Your task to perform on an android device: Is it going to rain tomorrow? Image 0: 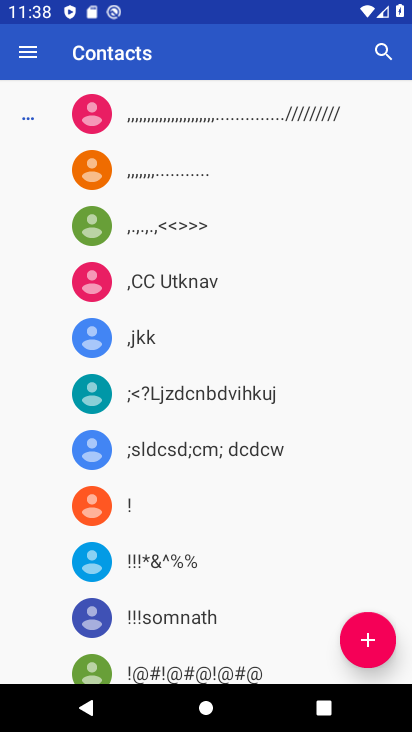
Step 0: press home button
Your task to perform on an android device: Is it going to rain tomorrow? Image 1: 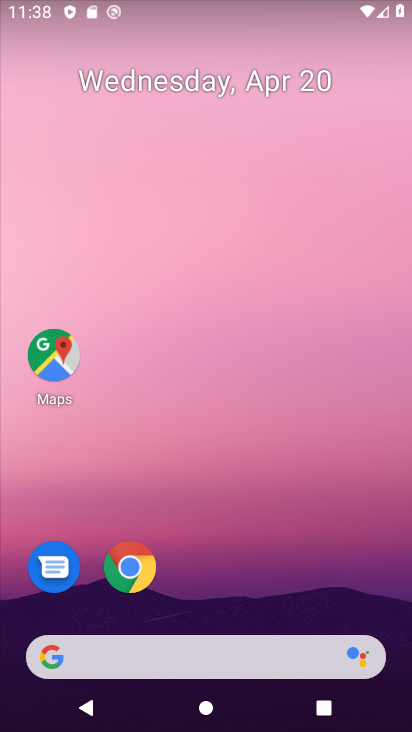
Step 1: drag from (198, 517) to (178, 269)
Your task to perform on an android device: Is it going to rain tomorrow? Image 2: 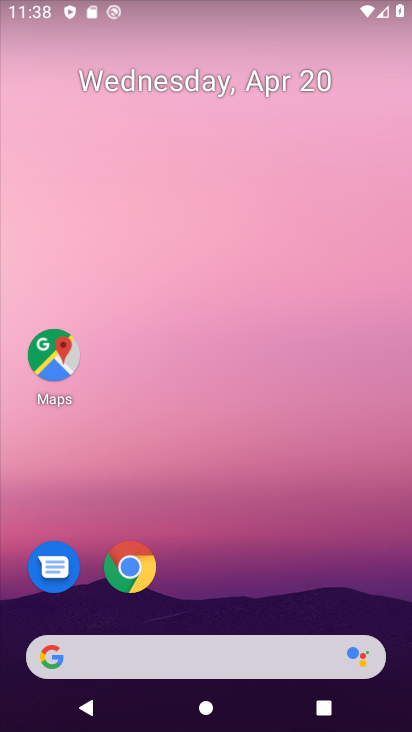
Step 2: drag from (190, 598) to (183, 231)
Your task to perform on an android device: Is it going to rain tomorrow? Image 3: 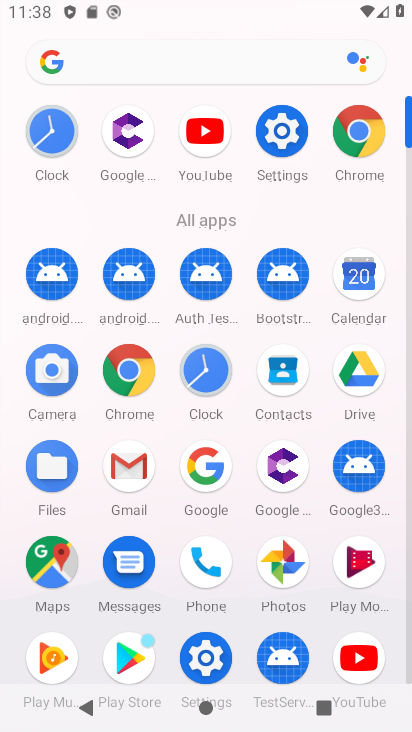
Step 3: click (202, 471)
Your task to perform on an android device: Is it going to rain tomorrow? Image 4: 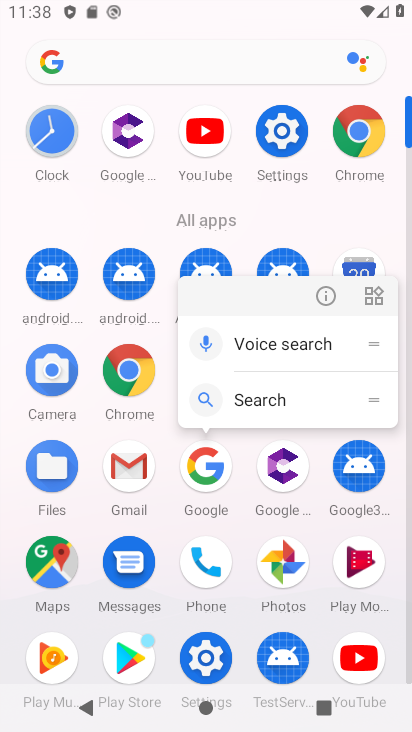
Step 4: click (195, 453)
Your task to perform on an android device: Is it going to rain tomorrow? Image 5: 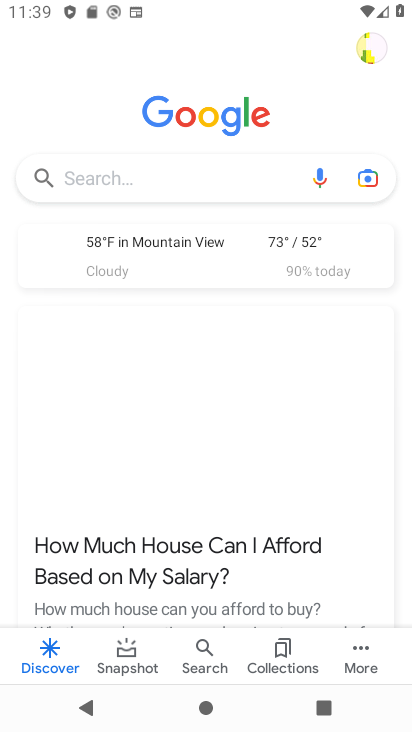
Step 5: click (107, 178)
Your task to perform on an android device: Is it going to rain tomorrow? Image 6: 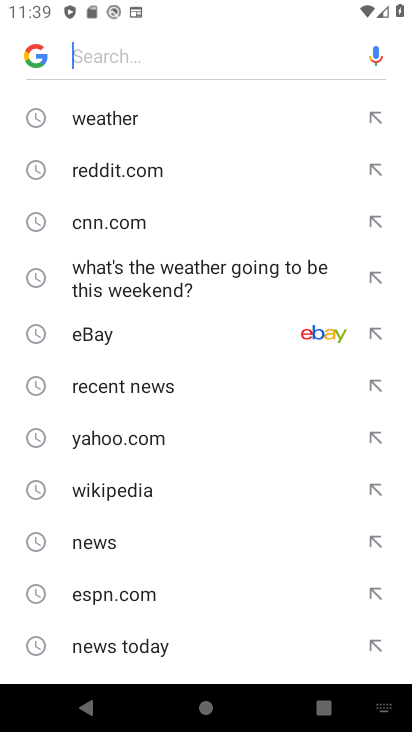
Step 6: type "is it going rain tomorrow?"
Your task to perform on an android device: Is it going to rain tomorrow? Image 7: 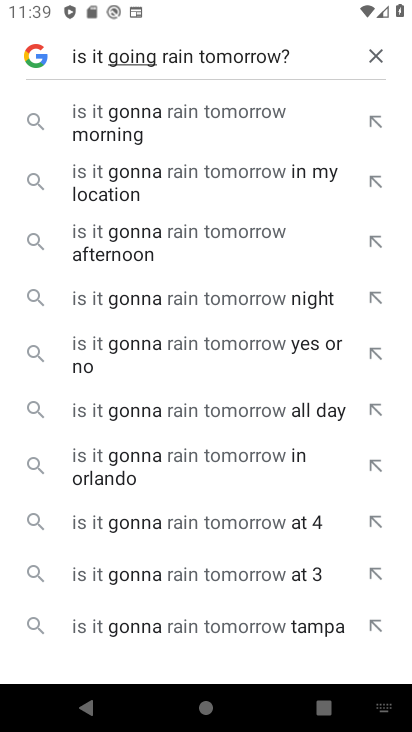
Step 7: click (139, 186)
Your task to perform on an android device: Is it going to rain tomorrow? Image 8: 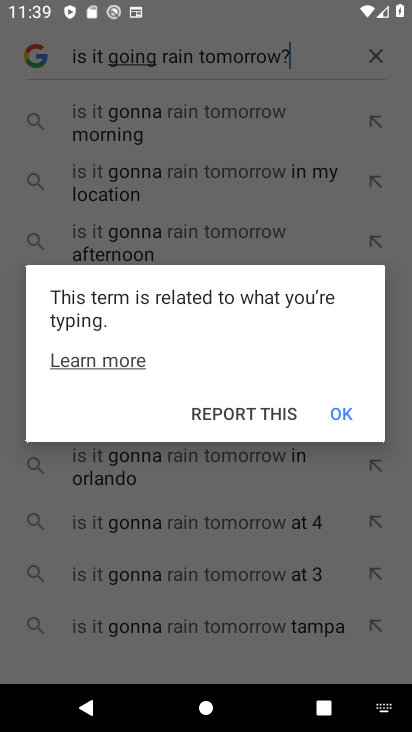
Step 8: click (331, 415)
Your task to perform on an android device: Is it going to rain tomorrow? Image 9: 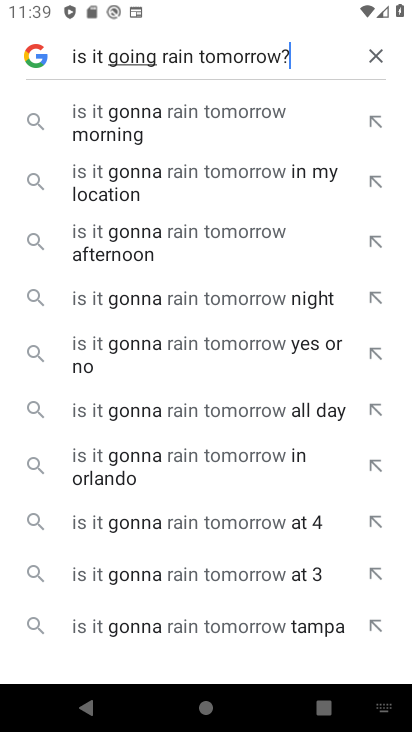
Step 9: click (109, 115)
Your task to perform on an android device: Is it going to rain tomorrow? Image 10: 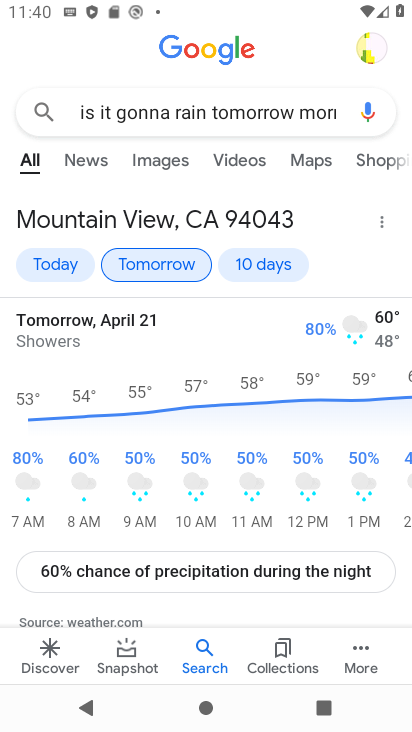
Step 10: task complete